Your task to perform on an android device: check the backup settings in the google photos Image 0: 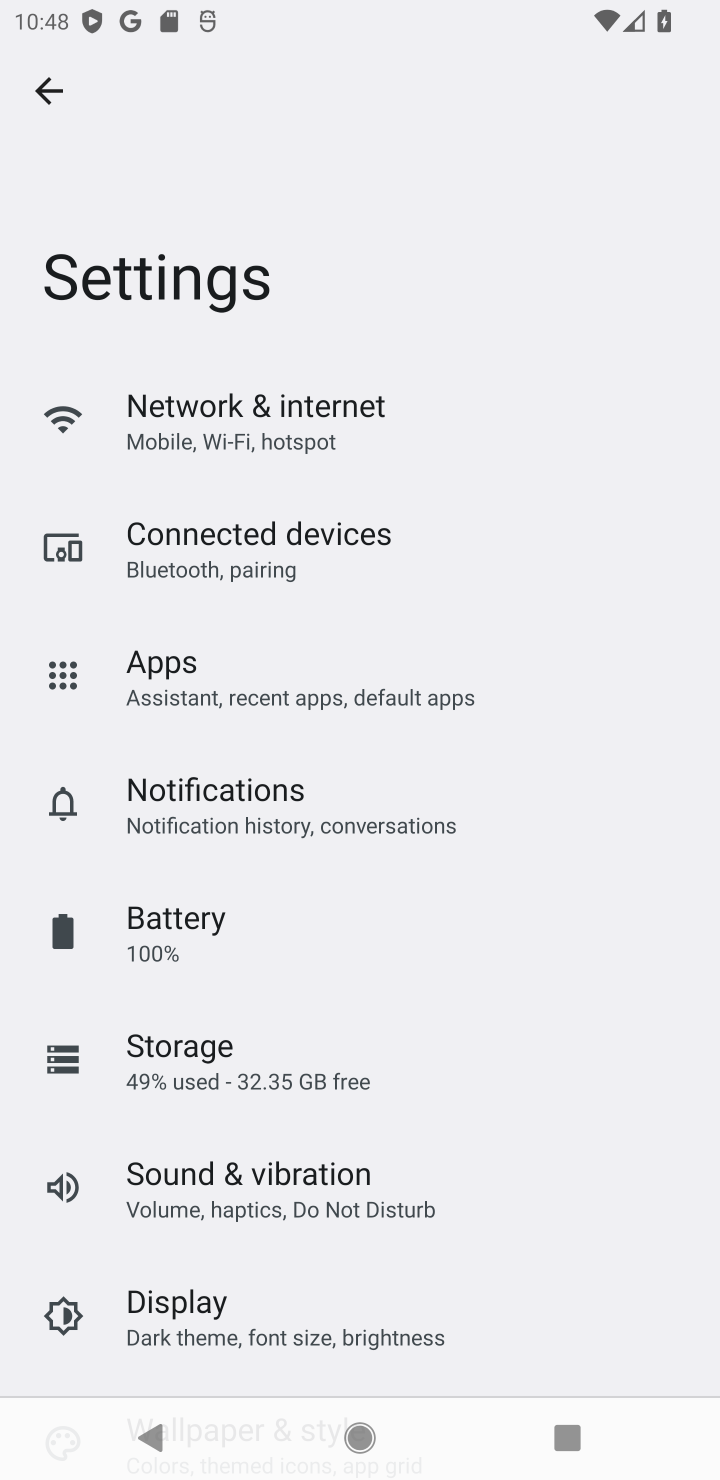
Step 0: press home button
Your task to perform on an android device: check the backup settings in the google photos Image 1: 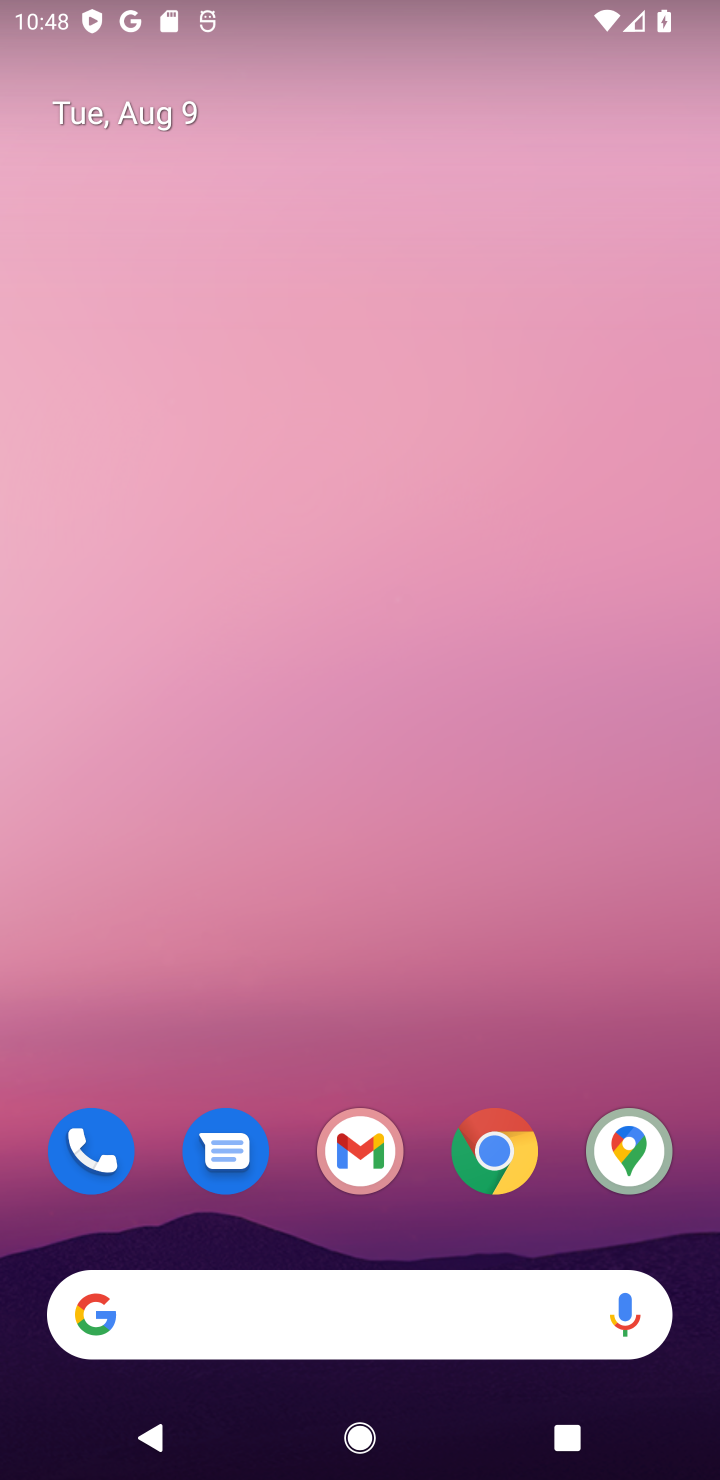
Step 1: drag from (293, 1201) to (400, 26)
Your task to perform on an android device: check the backup settings in the google photos Image 2: 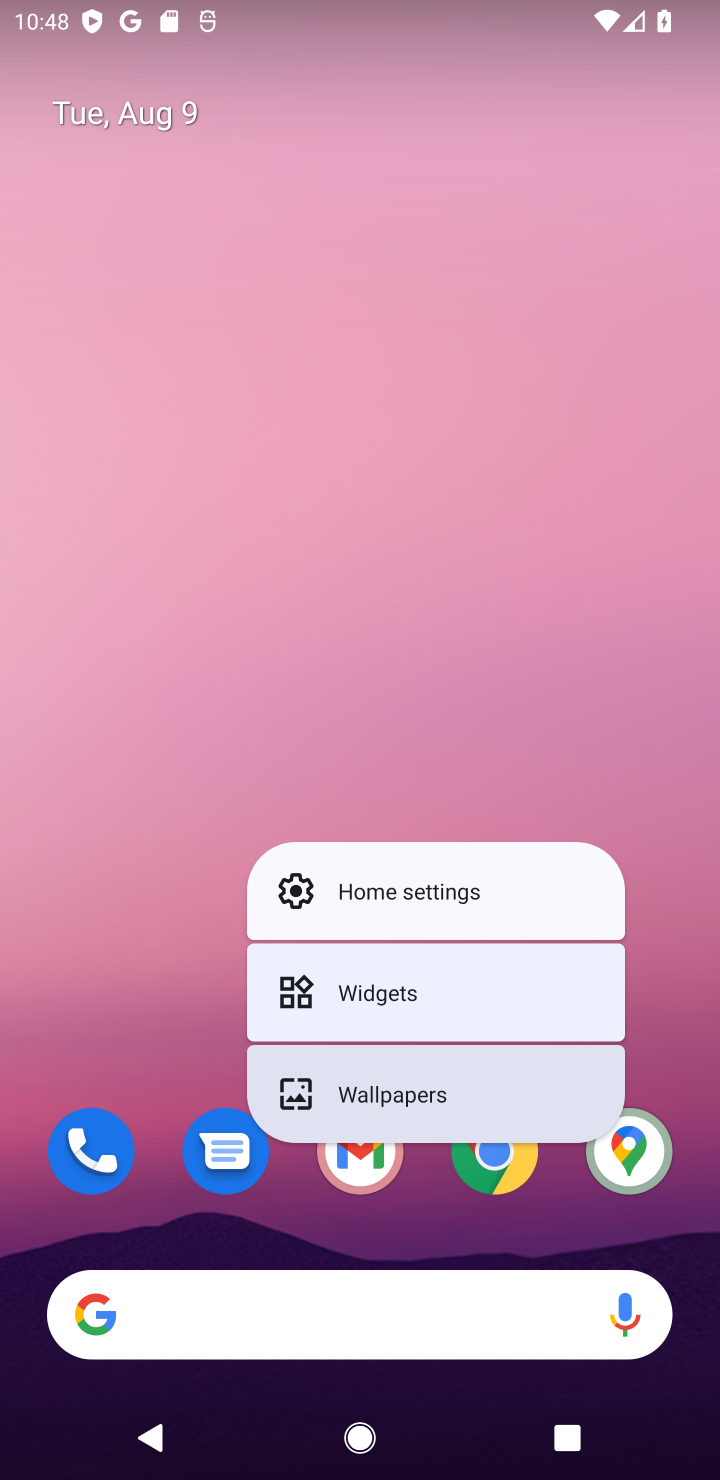
Step 2: click (139, 1213)
Your task to perform on an android device: check the backup settings in the google photos Image 3: 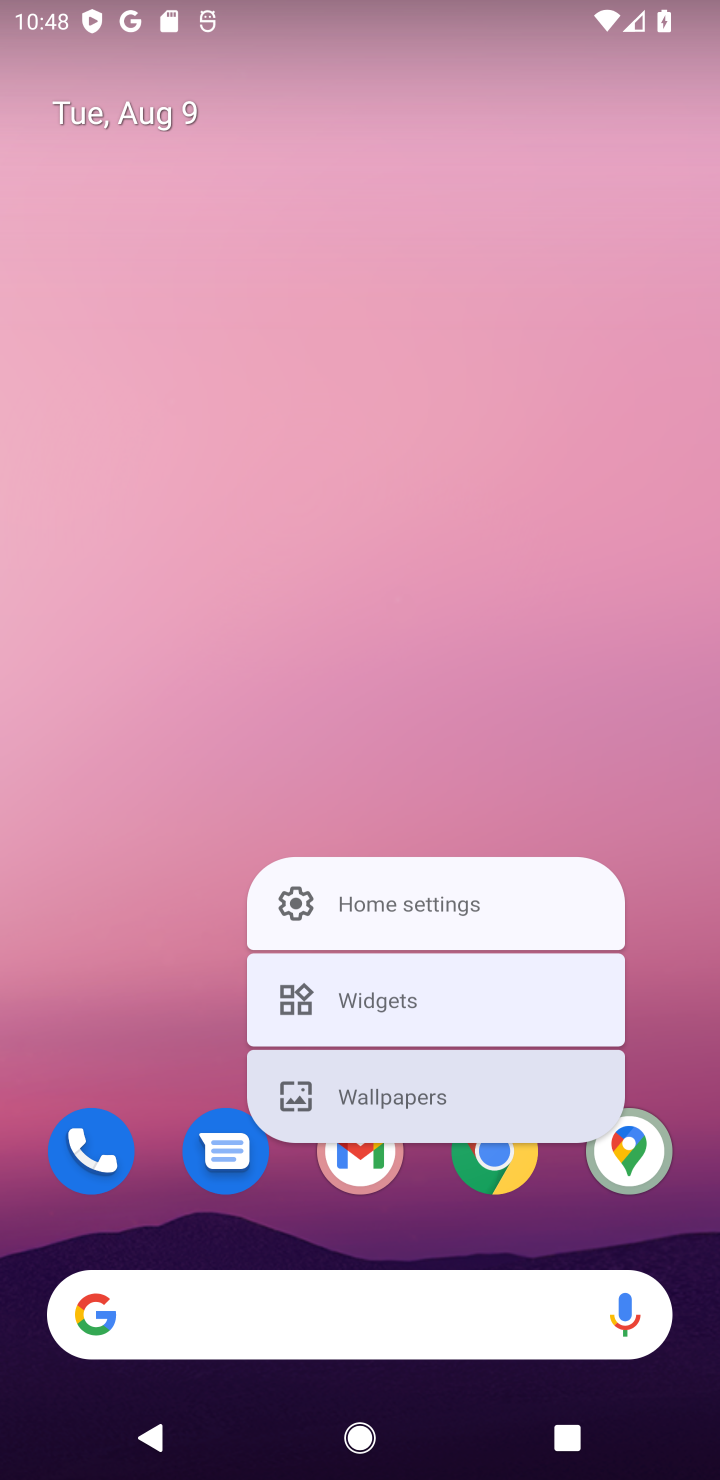
Step 3: drag from (139, 1213) to (405, 50)
Your task to perform on an android device: check the backup settings in the google photos Image 4: 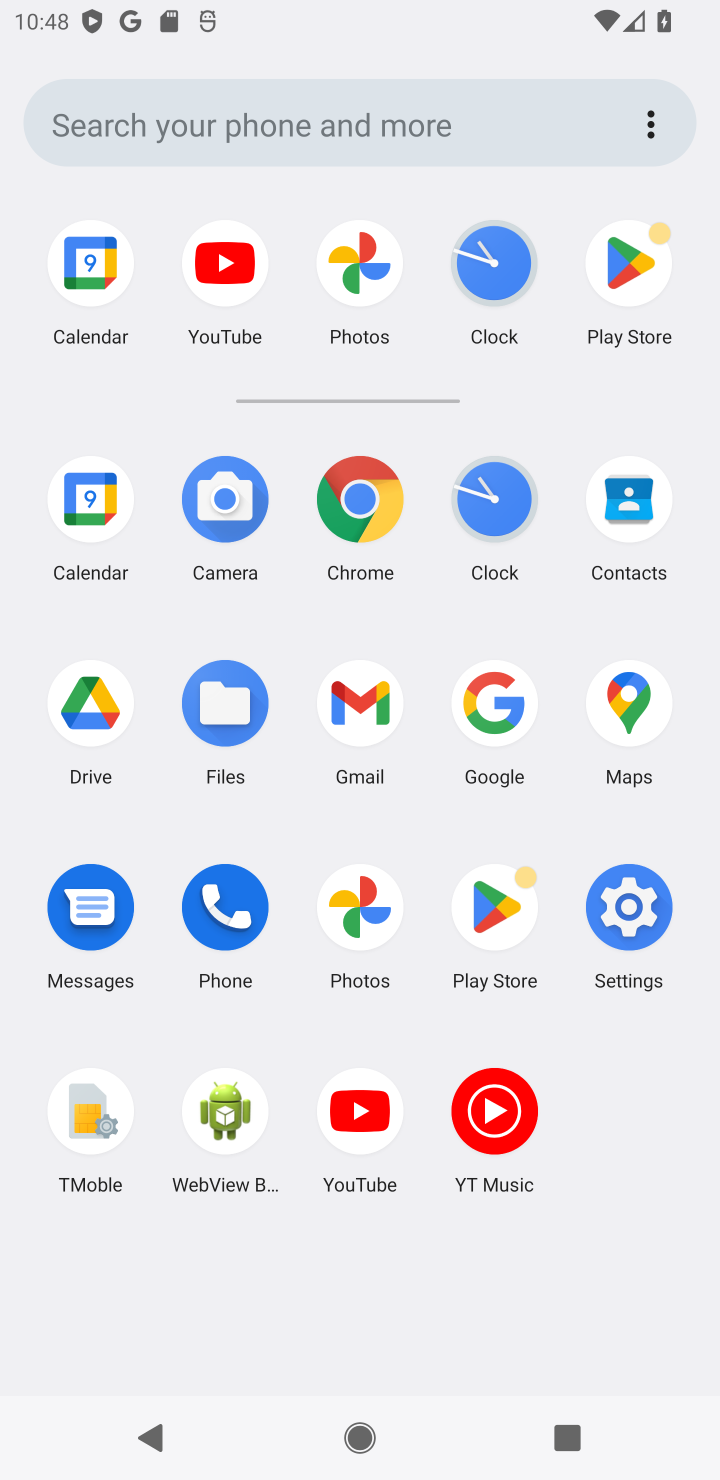
Step 4: click (337, 912)
Your task to perform on an android device: check the backup settings in the google photos Image 5: 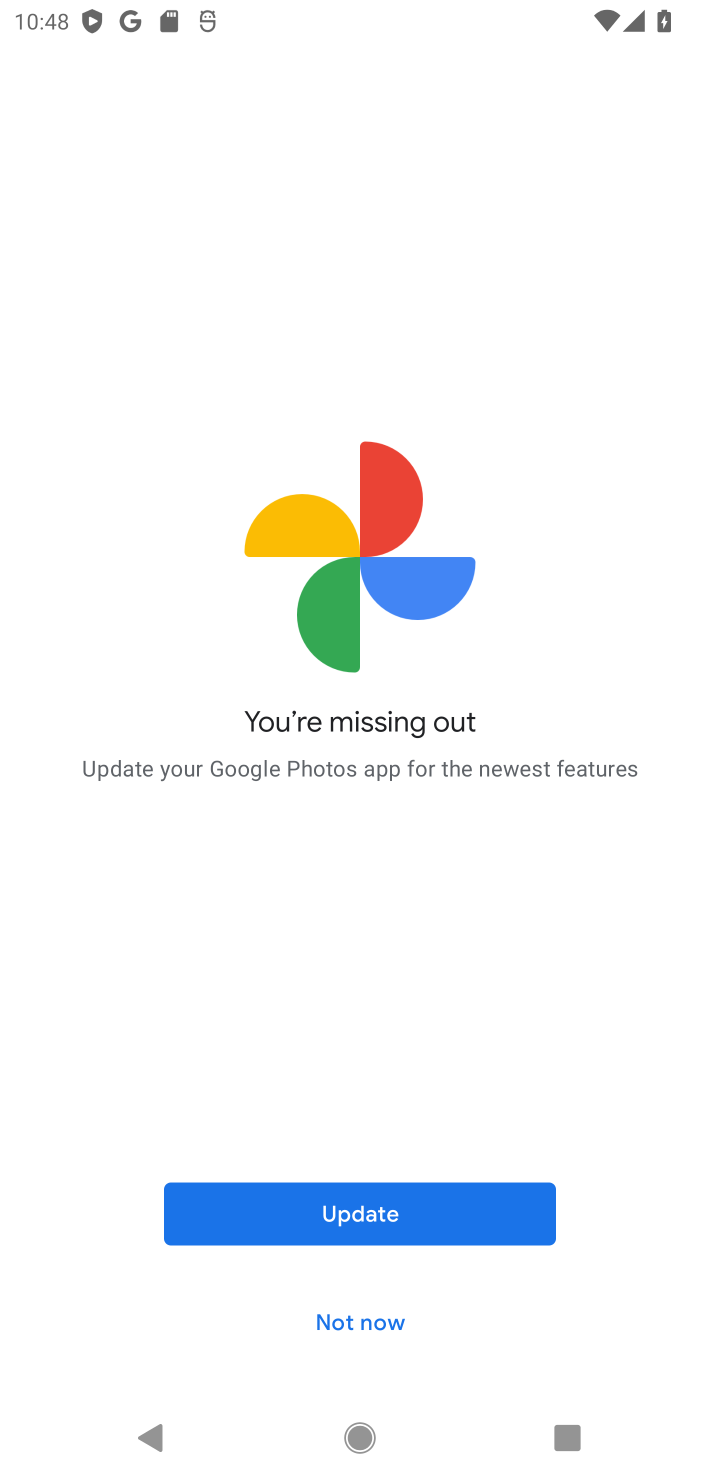
Step 5: click (347, 1316)
Your task to perform on an android device: check the backup settings in the google photos Image 6: 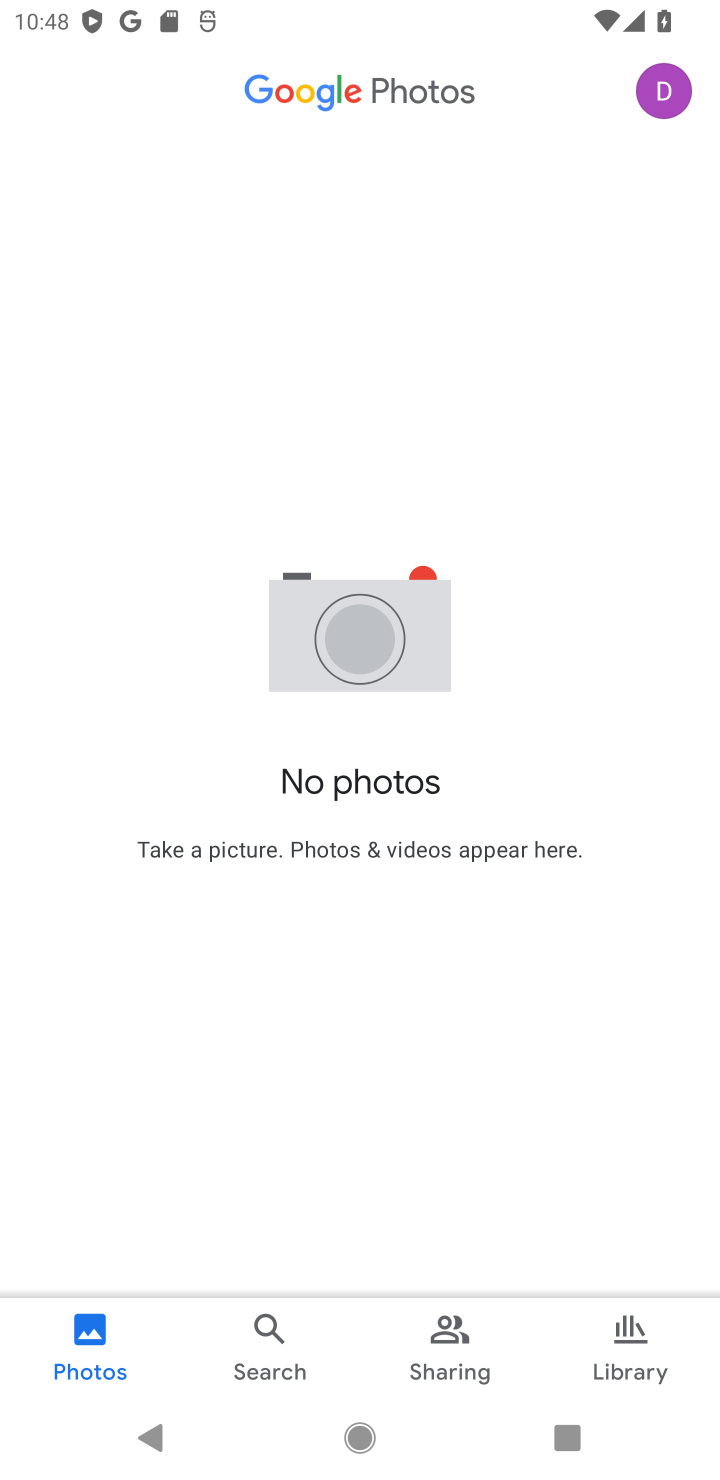
Step 6: click (664, 91)
Your task to perform on an android device: check the backup settings in the google photos Image 7: 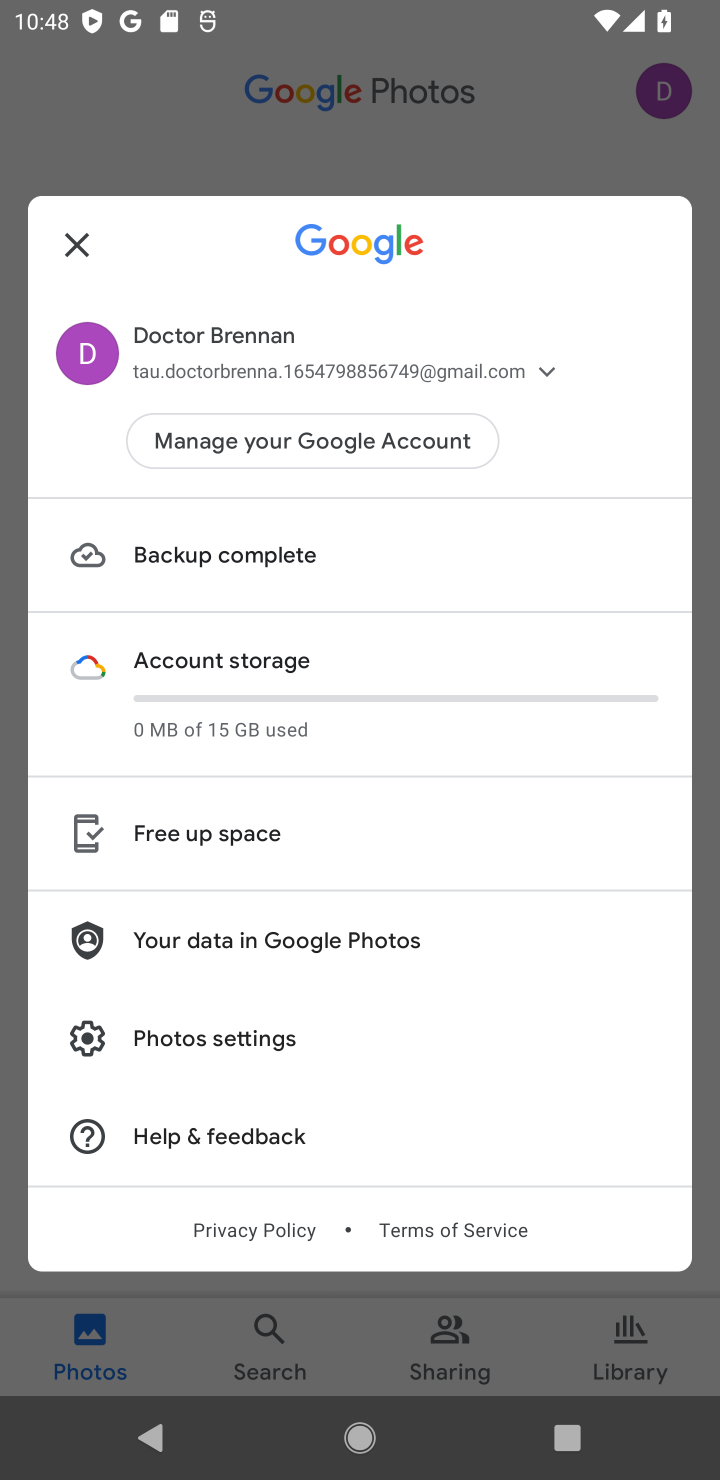
Step 7: click (415, 583)
Your task to perform on an android device: check the backup settings in the google photos Image 8: 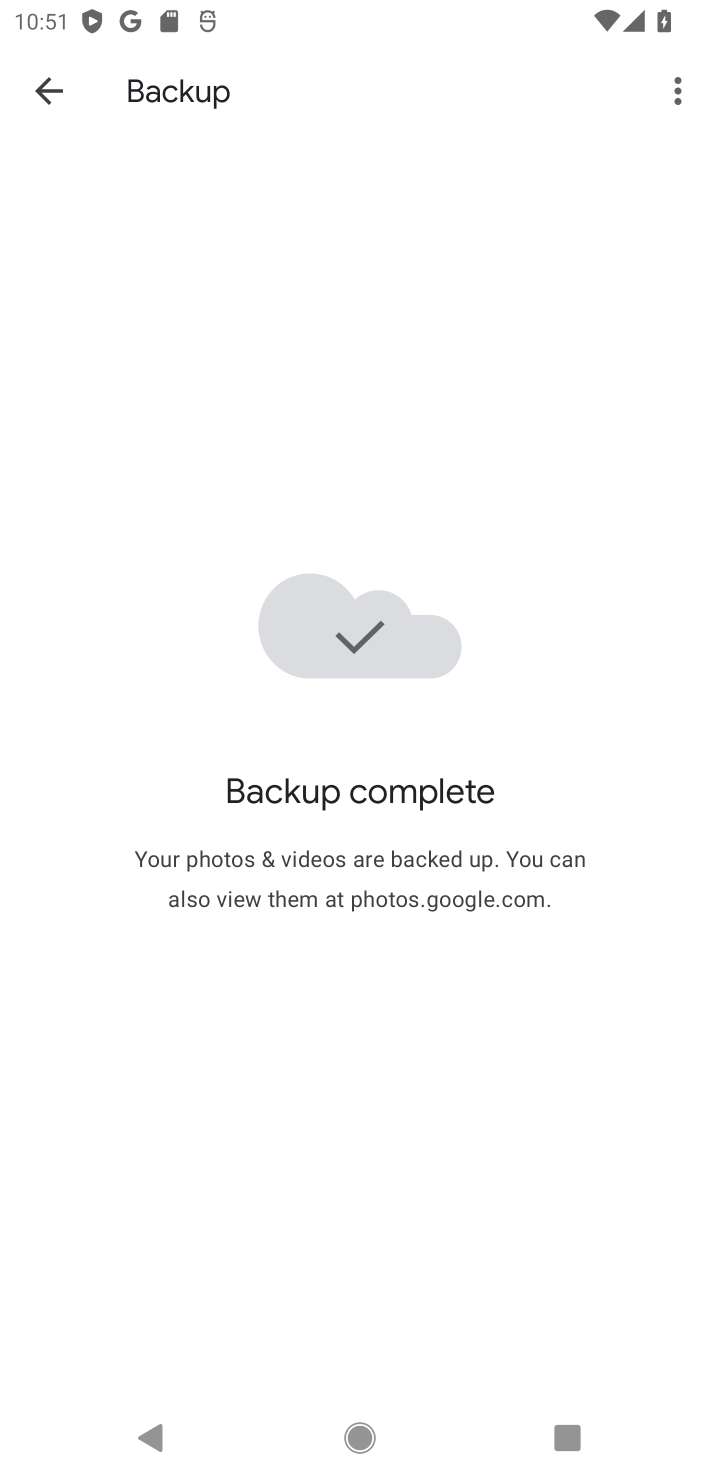
Step 8: task complete